Your task to perform on an android device: Go to CNN.com Image 0: 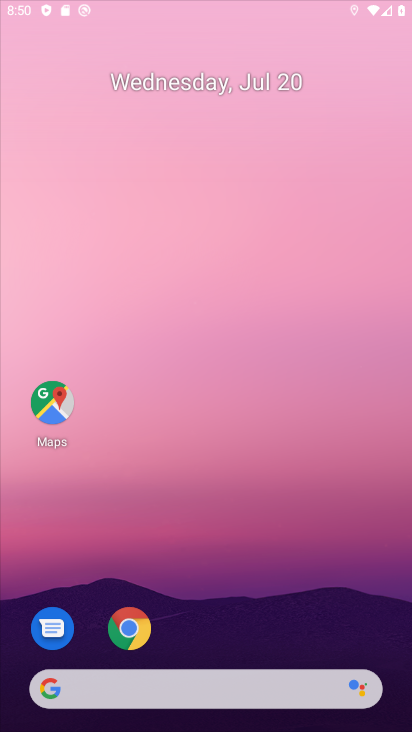
Step 0: drag from (236, 271) to (231, 220)
Your task to perform on an android device: Go to CNN.com Image 1: 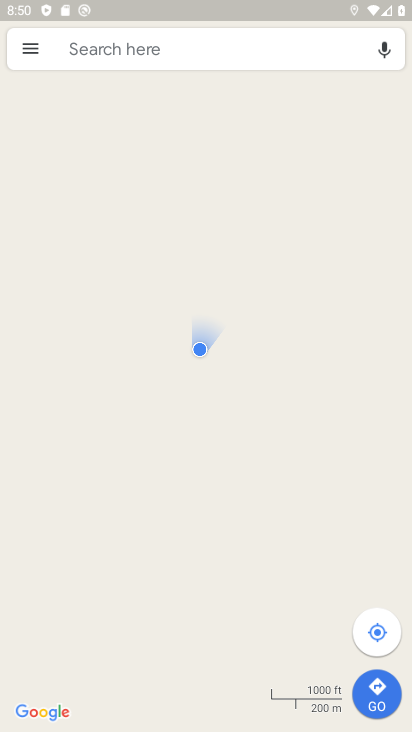
Step 1: press home button
Your task to perform on an android device: Go to CNN.com Image 2: 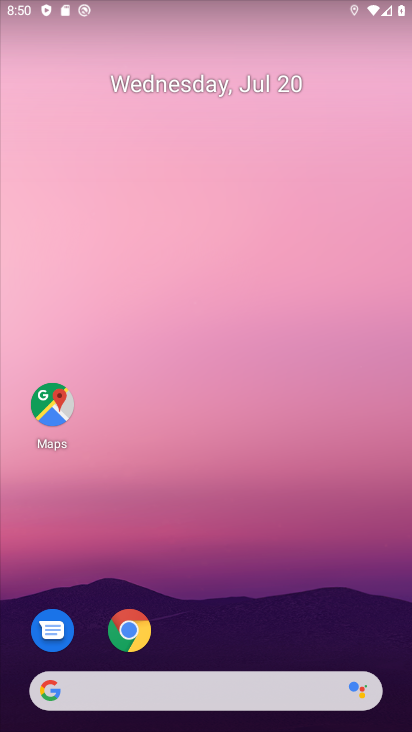
Step 2: click (142, 635)
Your task to perform on an android device: Go to CNN.com Image 3: 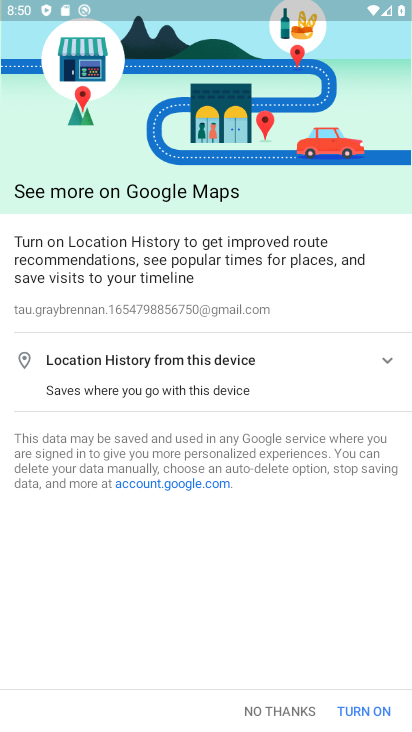
Step 3: press home button
Your task to perform on an android device: Go to CNN.com Image 4: 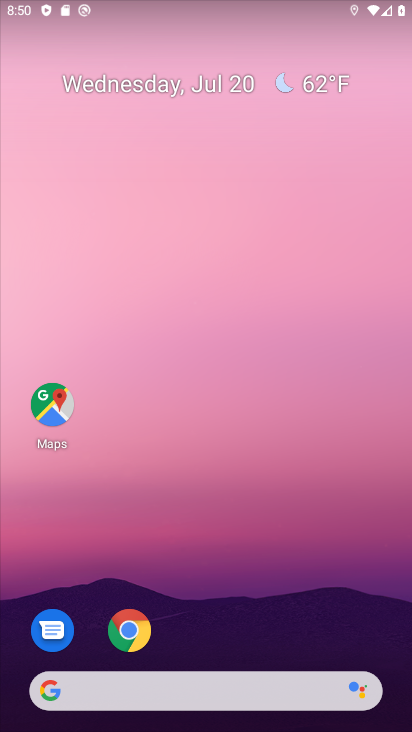
Step 4: click (129, 629)
Your task to perform on an android device: Go to CNN.com Image 5: 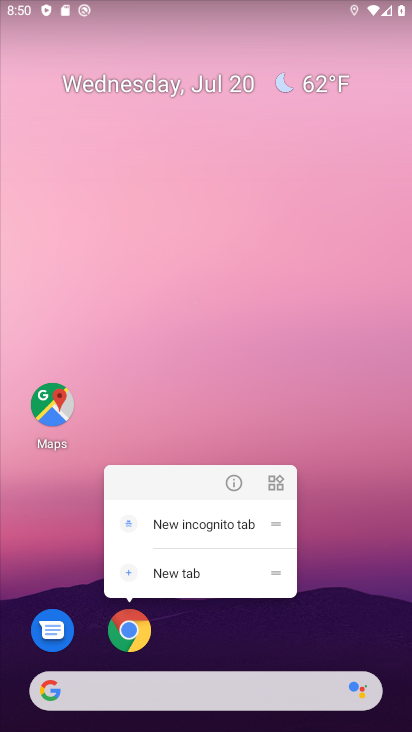
Step 5: click (131, 630)
Your task to perform on an android device: Go to CNN.com Image 6: 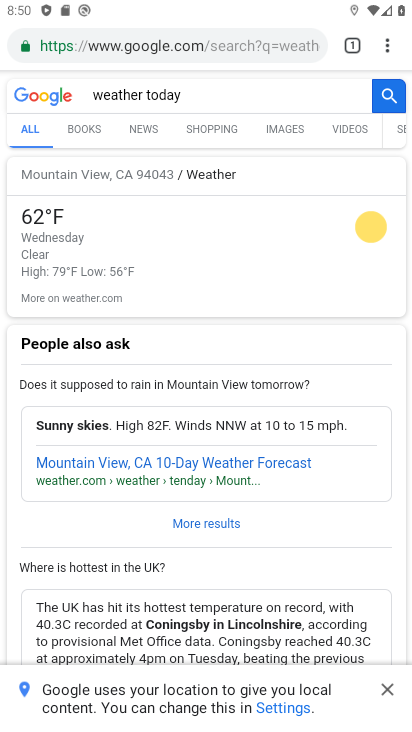
Step 6: click (133, 49)
Your task to perform on an android device: Go to CNN.com Image 7: 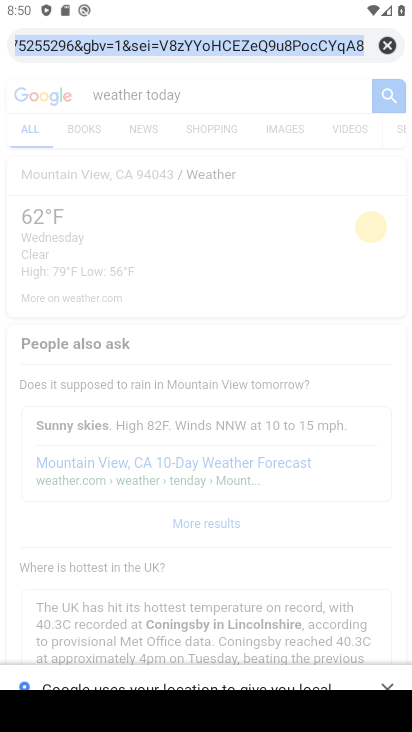
Step 7: type "cnn.com"
Your task to perform on an android device: Go to CNN.com Image 8: 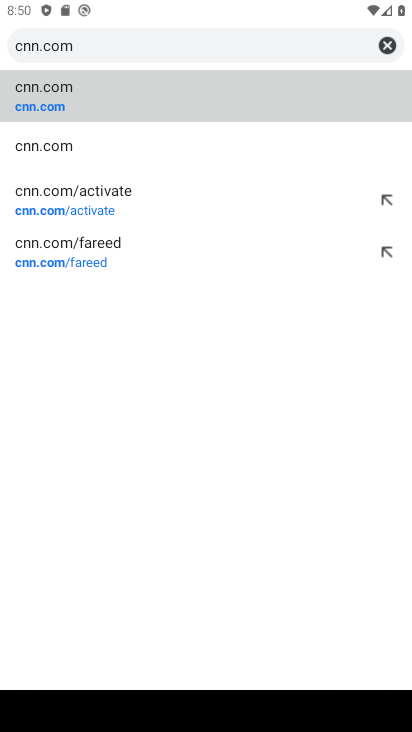
Step 8: click (151, 110)
Your task to perform on an android device: Go to CNN.com Image 9: 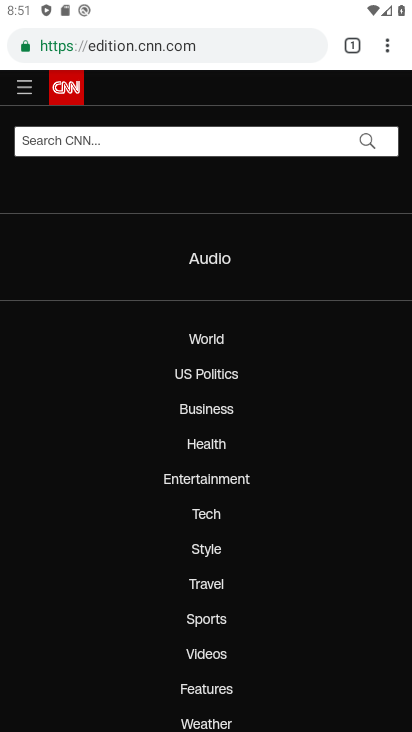
Step 9: task complete